Your task to perform on an android device: set default search engine in the chrome app Image 0: 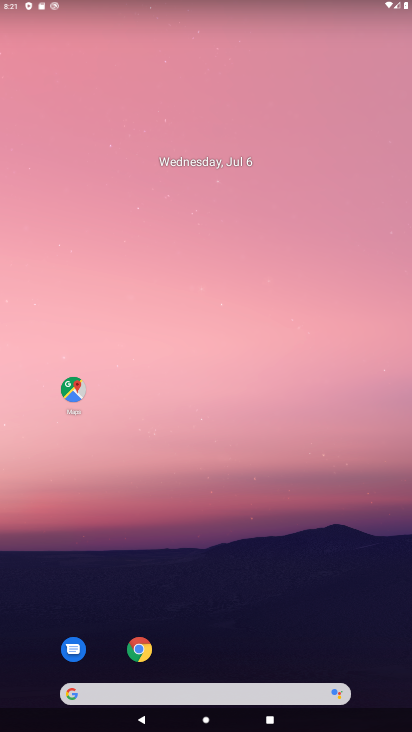
Step 0: drag from (242, 623) to (238, 242)
Your task to perform on an android device: set default search engine in the chrome app Image 1: 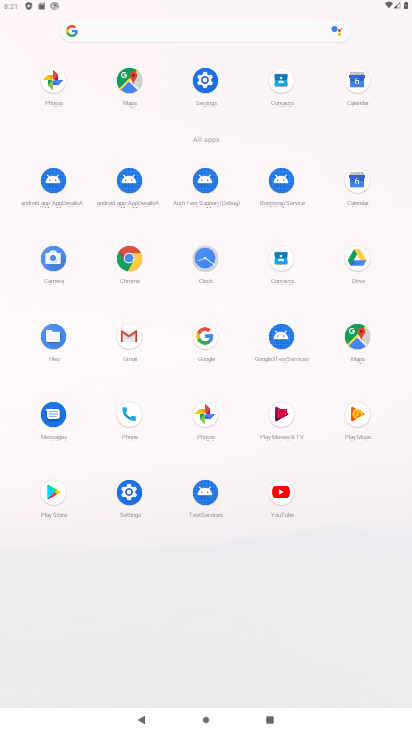
Step 1: click (131, 277)
Your task to perform on an android device: set default search engine in the chrome app Image 2: 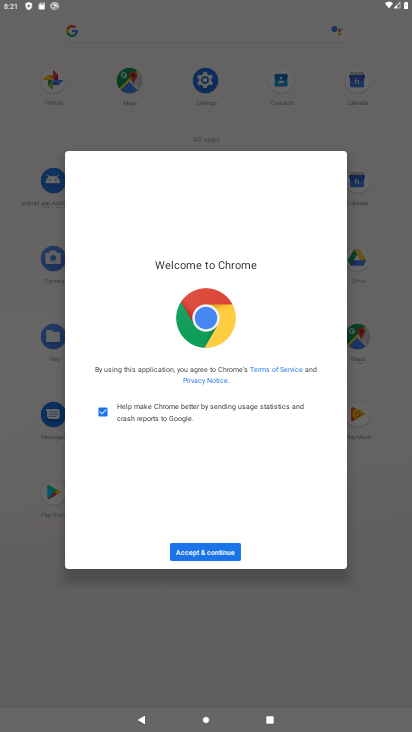
Step 2: click (227, 554)
Your task to perform on an android device: set default search engine in the chrome app Image 3: 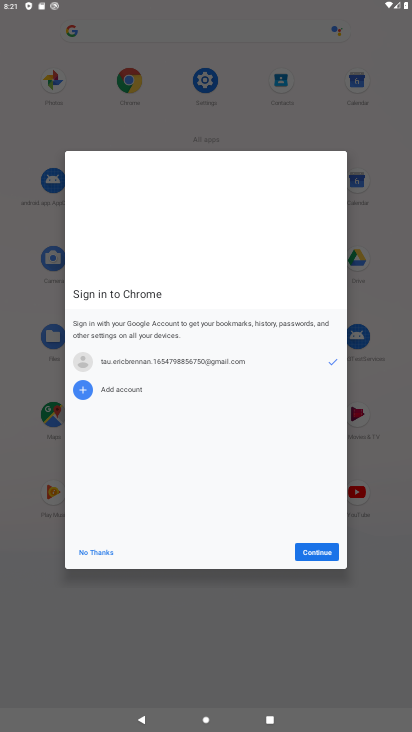
Step 3: click (329, 548)
Your task to perform on an android device: set default search engine in the chrome app Image 4: 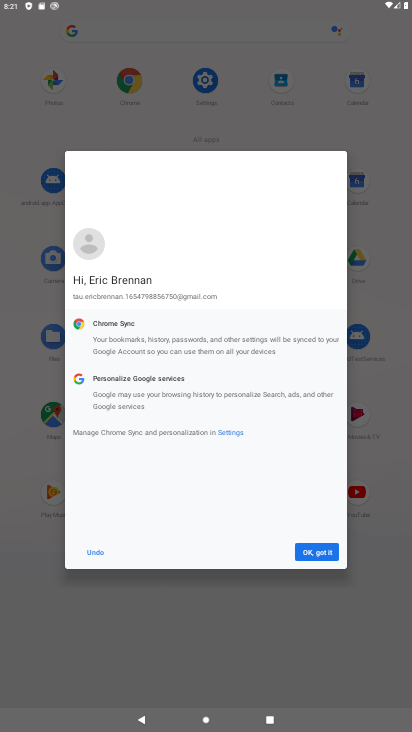
Step 4: click (307, 558)
Your task to perform on an android device: set default search engine in the chrome app Image 5: 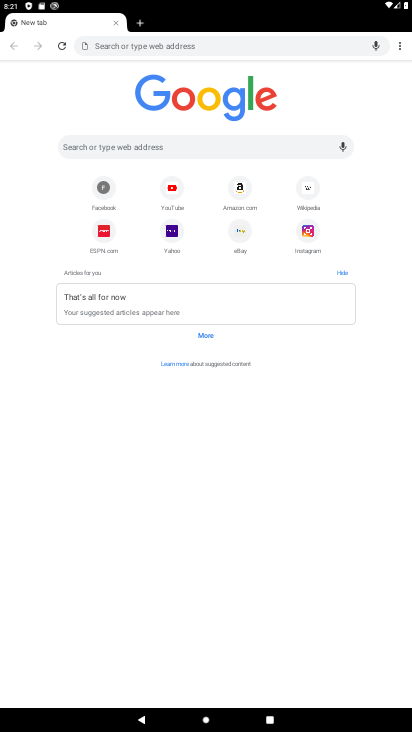
Step 5: click (398, 44)
Your task to perform on an android device: set default search engine in the chrome app Image 6: 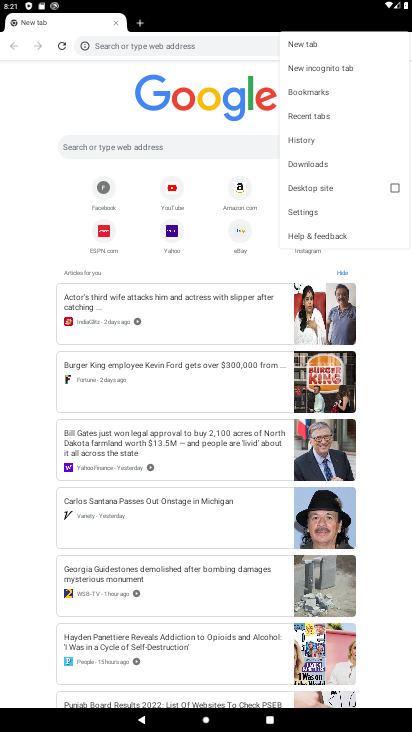
Step 6: click (304, 210)
Your task to perform on an android device: set default search engine in the chrome app Image 7: 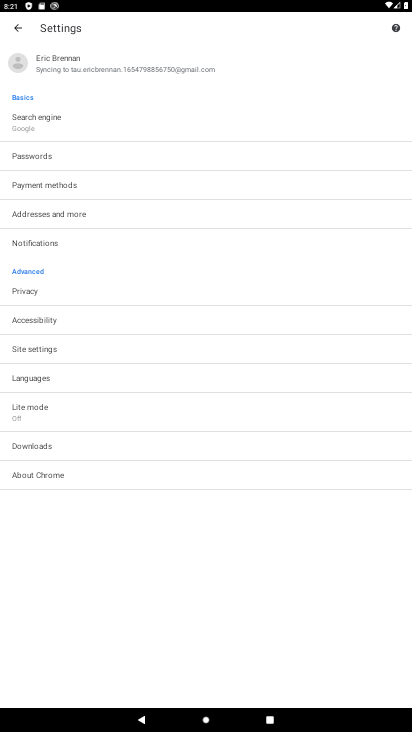
Step 7: click (66, 131)
Your task to perform on an android device: set default search engine in the chrome app Image 8: 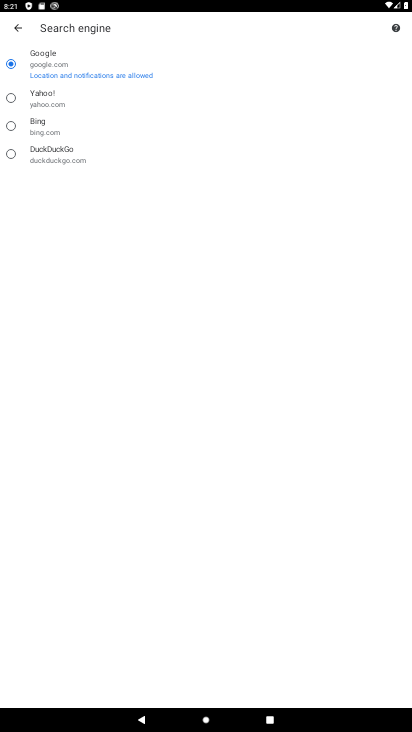
Step 8: click (76, 79)
Your task to perform on an android device: set default search engine in the chrome app Image 9: 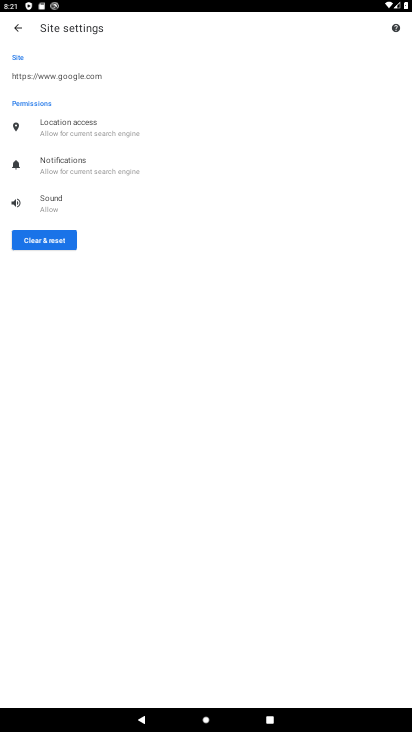
Step 9: click (65, 230)
Your task to perform on an android device: set default search engine in the chrome app Image 10: 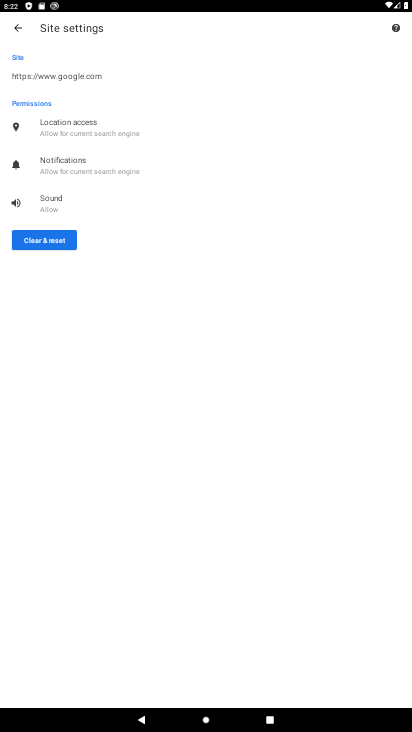
Step 10: click (47, 237)
Your task to perform on an android device: set default search engine in the chrome app Image 11: 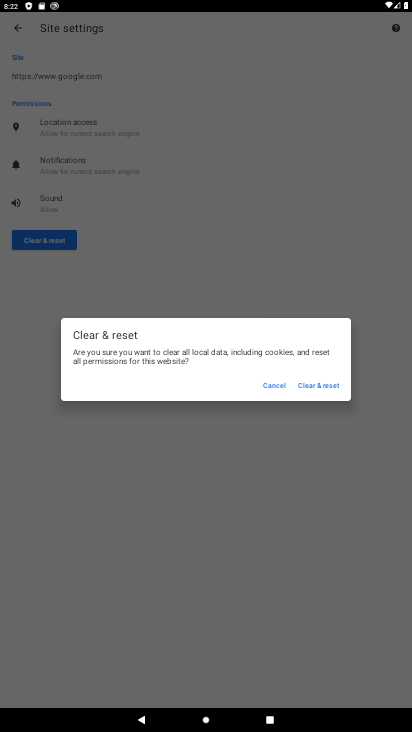
Step 11: click (316, 382)
Your task to perform on an android device: set default search engine in the chrome app Image 12: 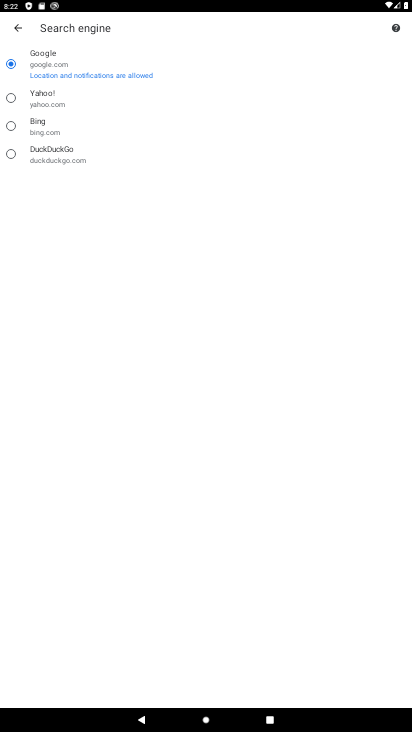
Step 12: task complete